Your task to perform on an android device: Open Yahoo.com Image 0: 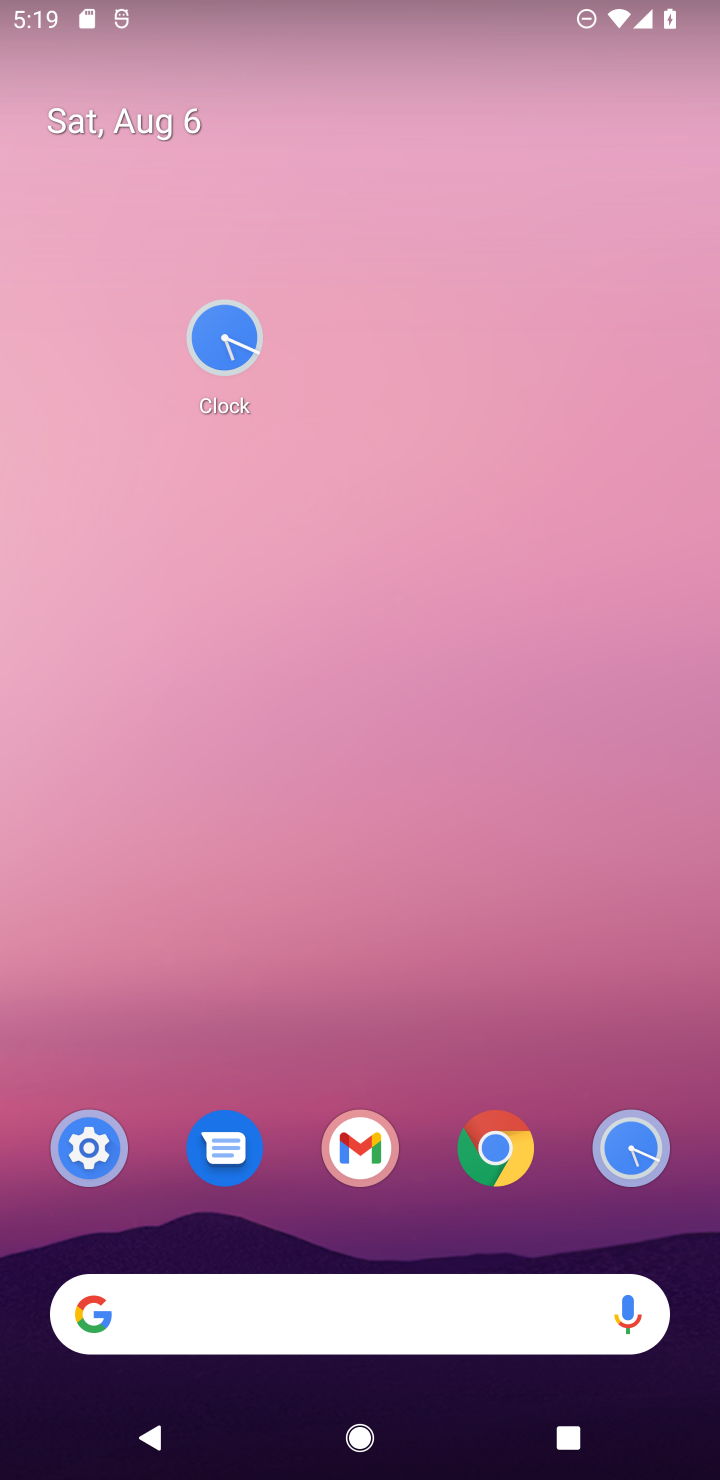
Step 0: drag from (304, 1184) to (487, 160)
Your task to perform on an android device: Open Yahoo.com Image 1: 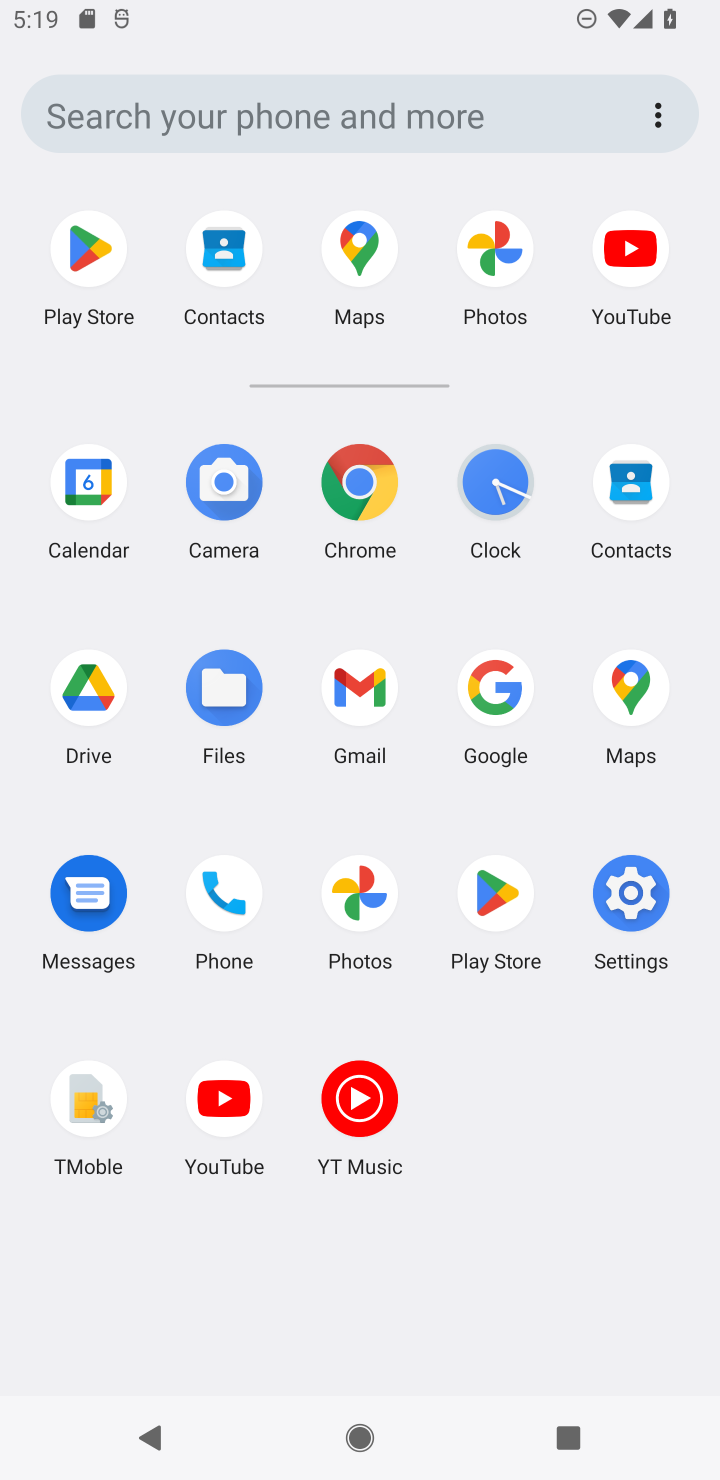
Step 1: click (240, 110)
Your task to perform on an android device: Open Yahoo.com Image 2: 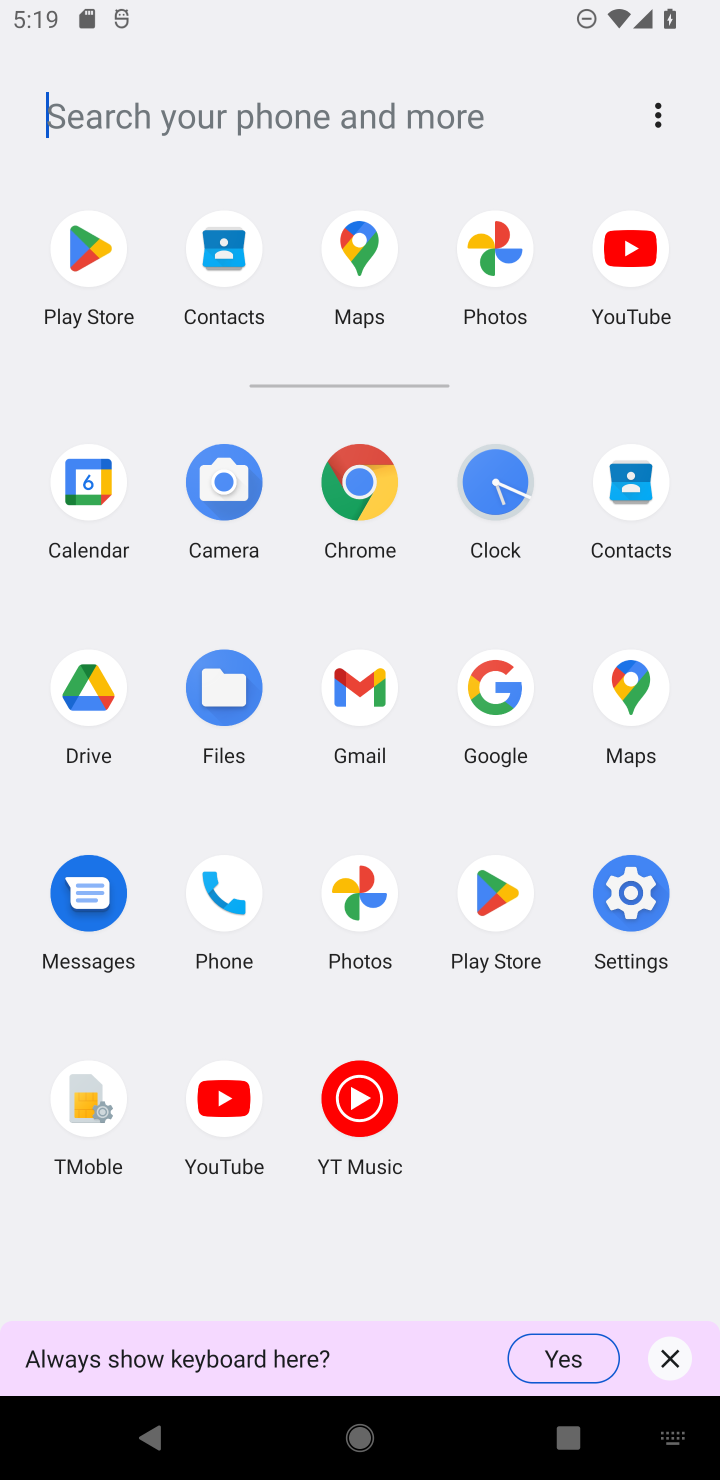
Step 2: type "Yahoo.com"
Your task to perform on an android device: Open Yahoo.com Image 3: 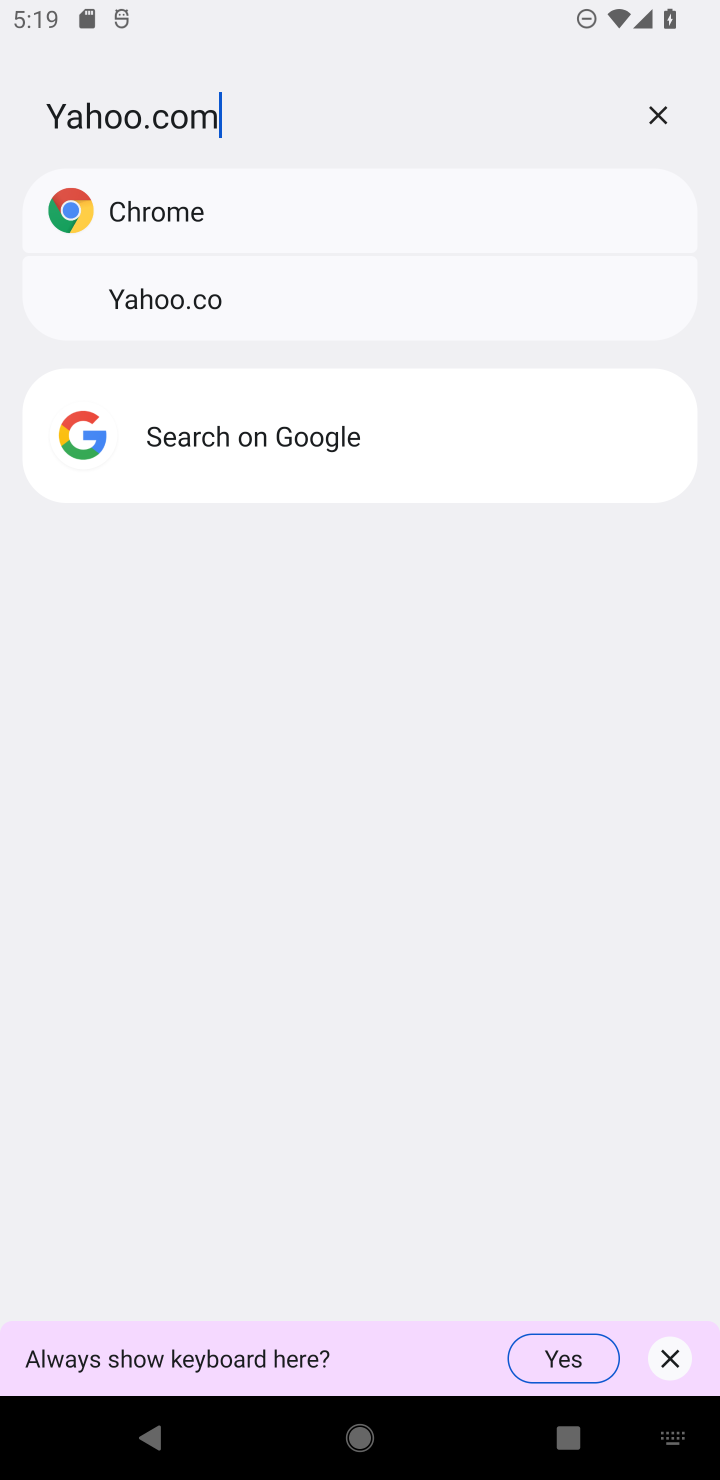
Step 3: type ""
Your task to perform on an android device: Open Yahoo.com Image 4: 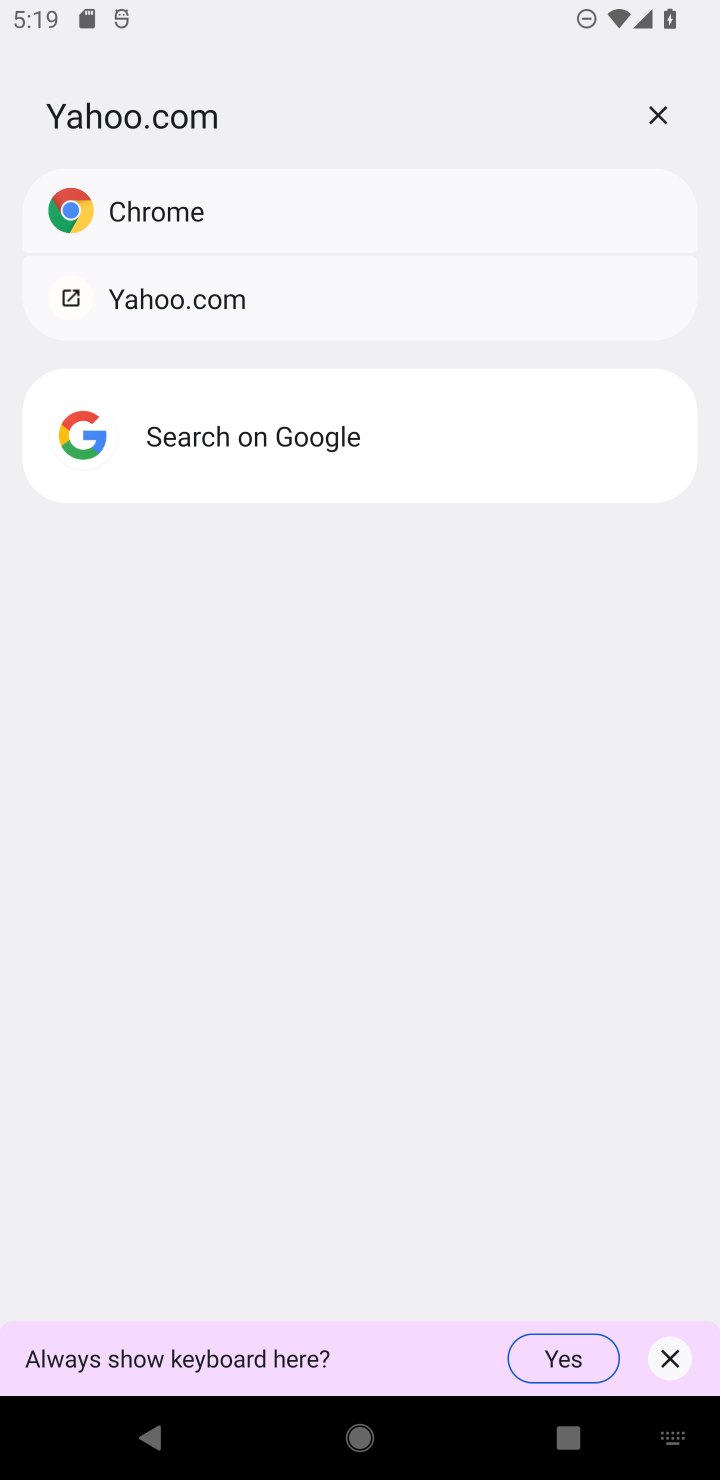
Step 4: click (183, 214)
Your task to perform on an android device: Open Yahoo.com Image 5: 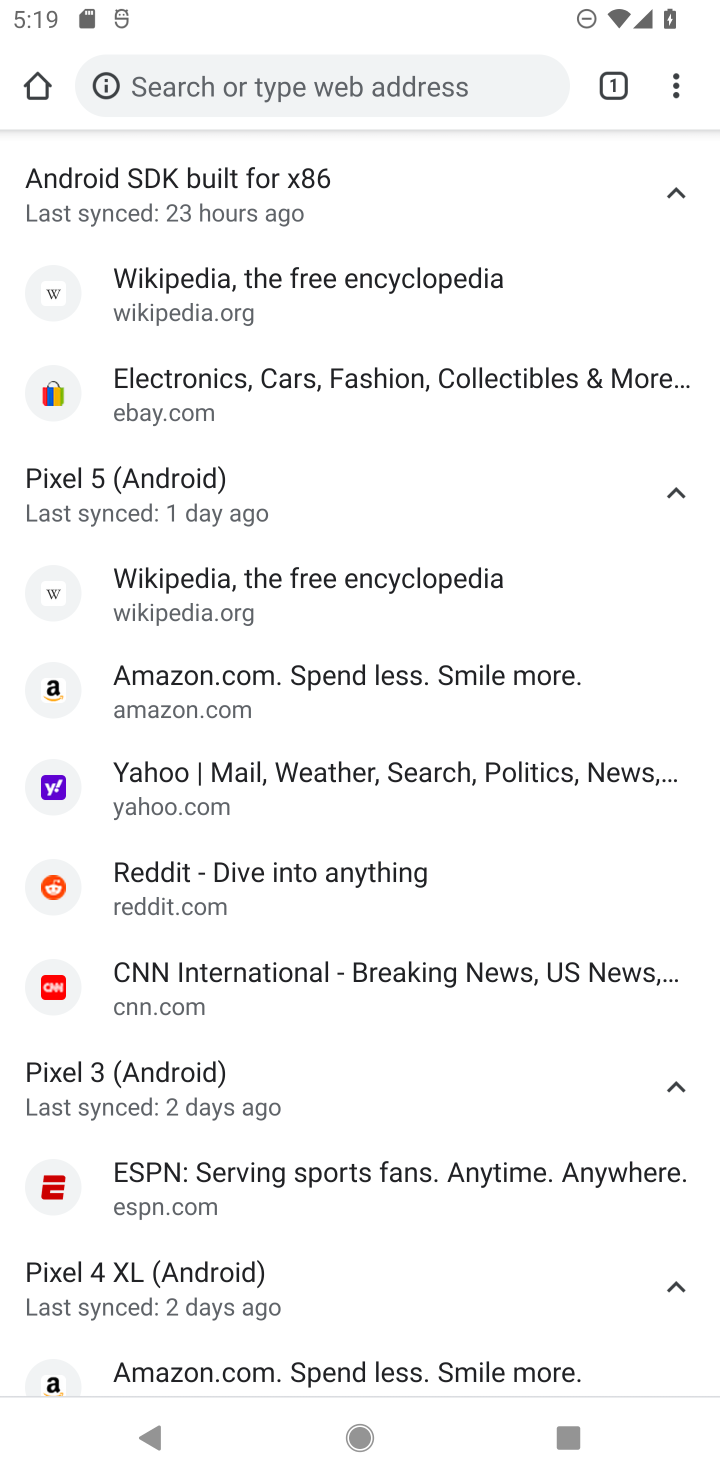
Step 5: click (279, 81)
Your task to perform on an android device: Open Yahoo.com Image 6: 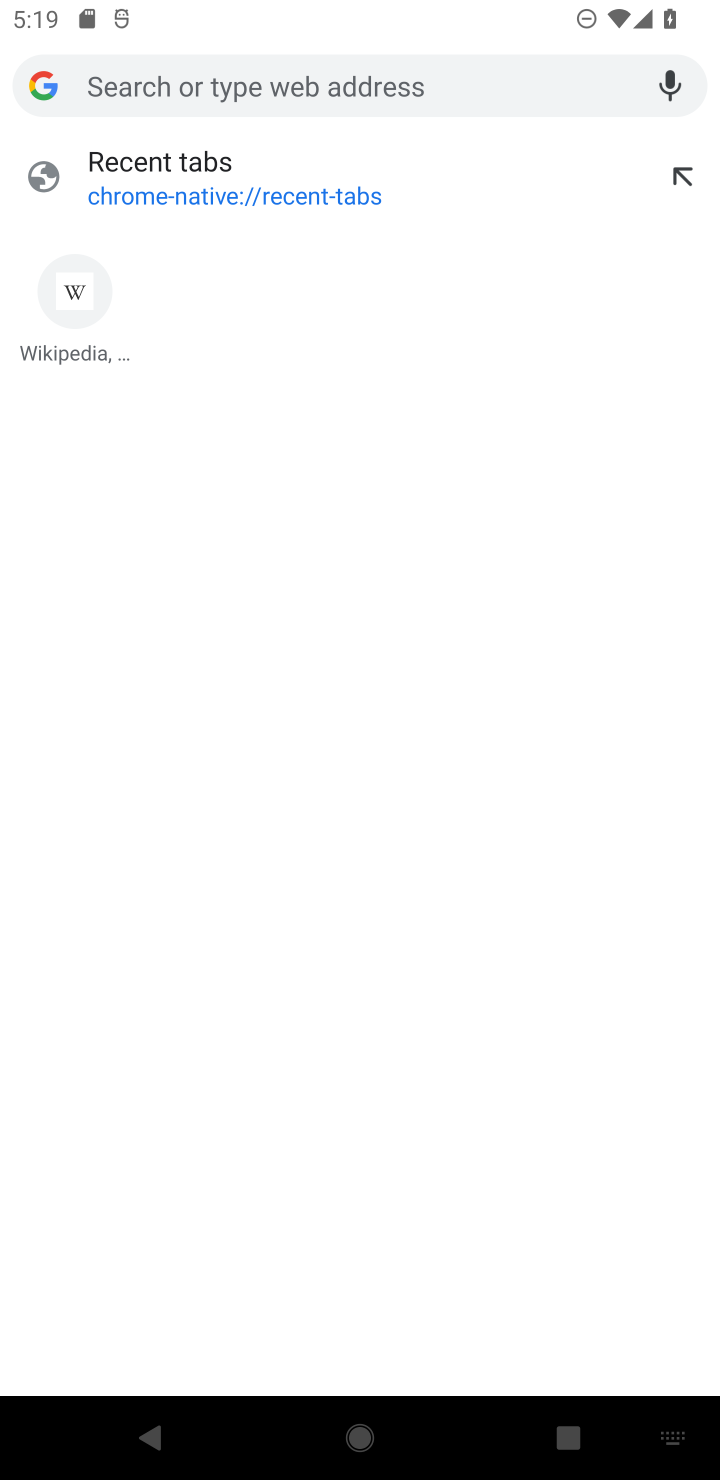
Step 6: type "Yahoo.com"
Your task to perform on an android device: Open Yahoo.com Image 7: 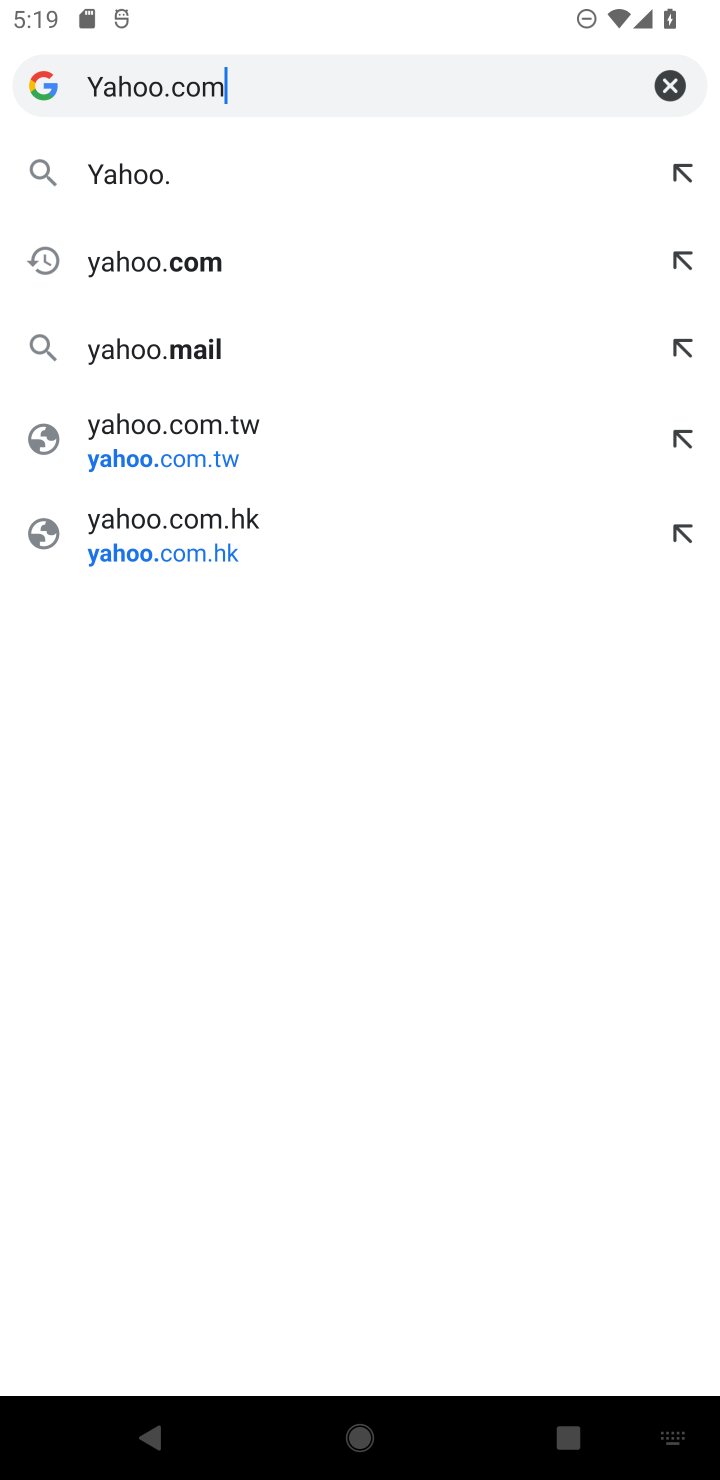
Step 7: type ""
Your task to perform on an android device: Open Yahoo.com Image 8: 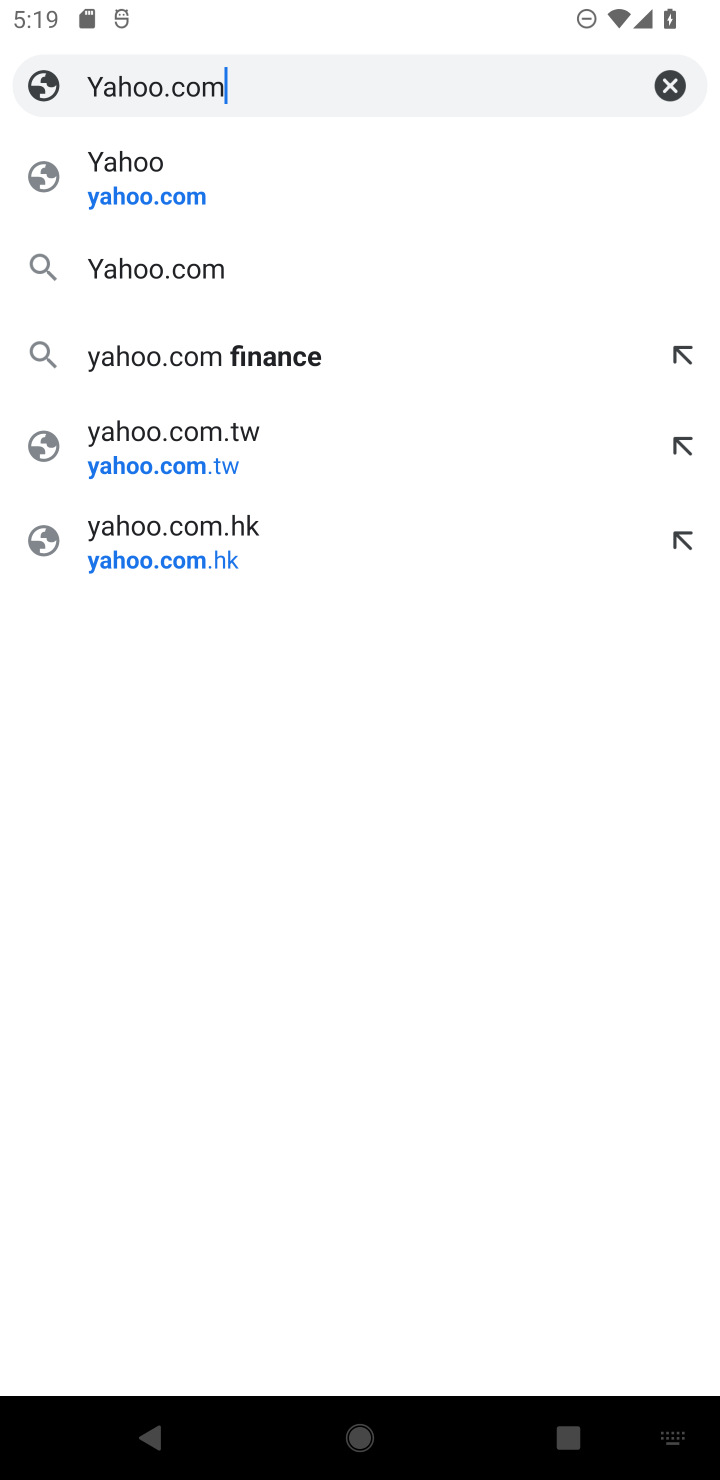
Step 8: click (175, 180)
Your task to perform on an android device: Open Yahoo.com Image 9: 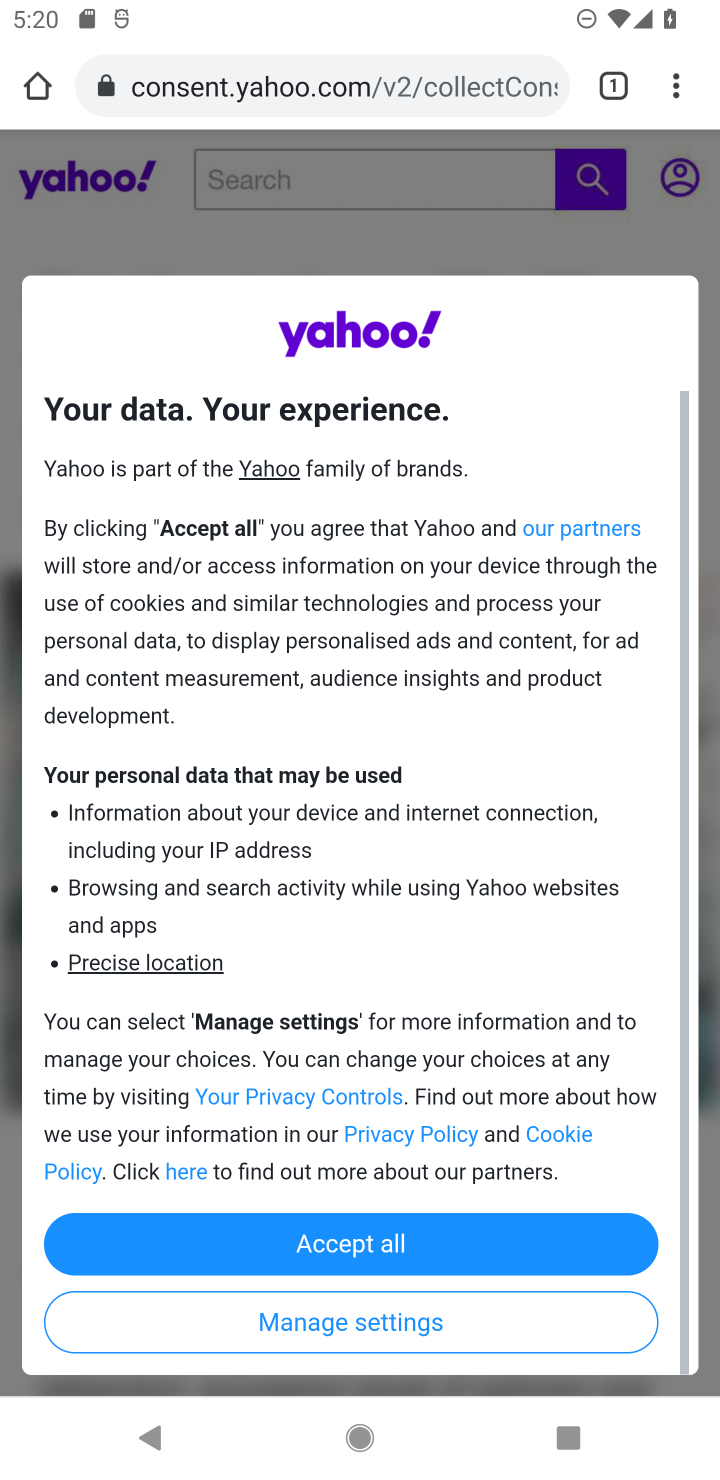
Step 9: task complete